Your task to perform on an android device: Play the last video I watched on Youtube Image 0: 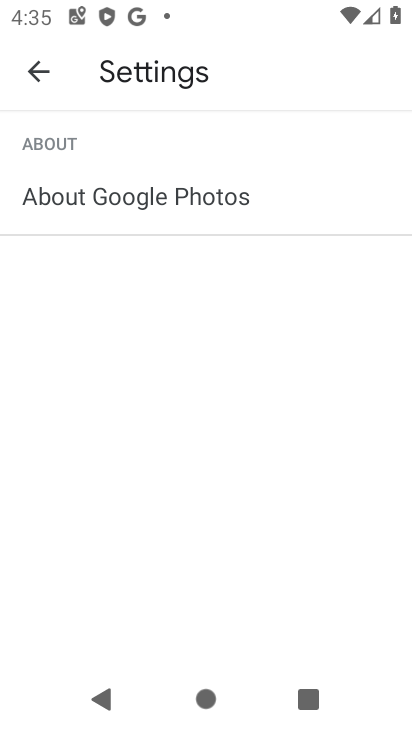
Step 0: press home button
Your task to perform on an android device: Play the last video I watched on Youtube Image 1: 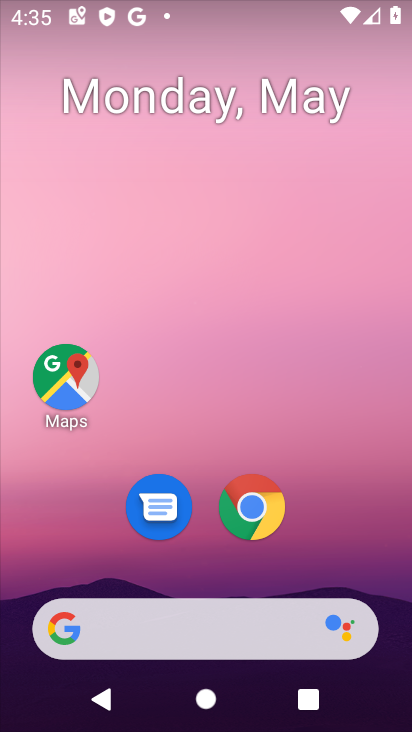
Step 1: drag from (328, 531) to (325, 35)
Your task to perform on an android device: Play the last video I watched on Youtube Image 2: 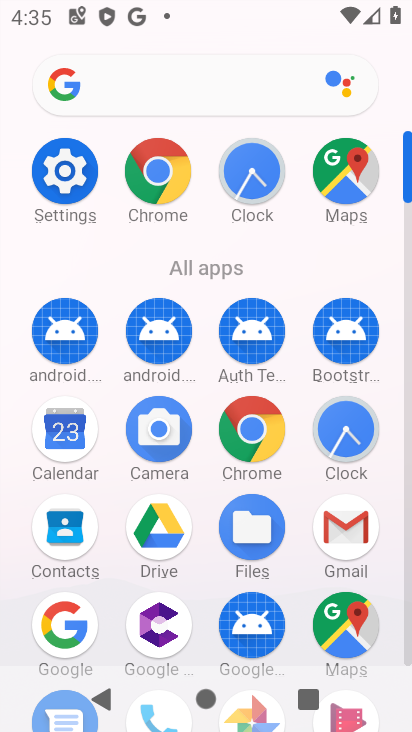
Step 2: drag from (395, 579) to (396, 182)
Your task to perform on an android device: Play the last video I watched on Youtube Image 3: 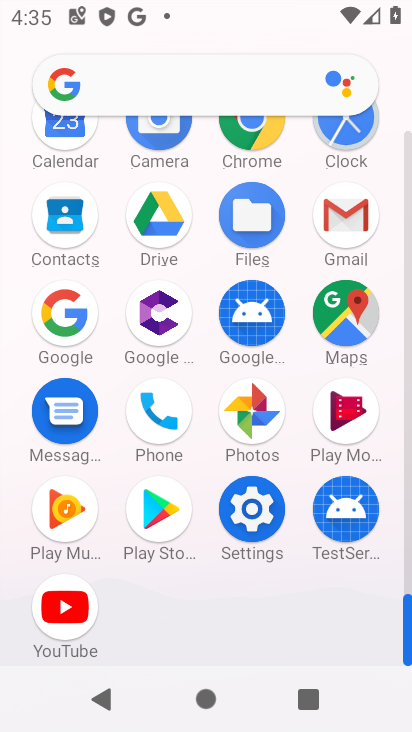
Step 3: click (57, 618)
Your task to perform on an android device: Play the last video I watched on Youtube Image 4: 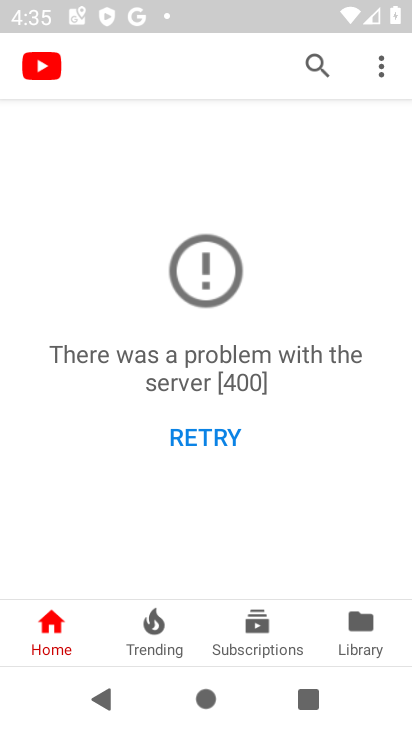
Step 4: click (363, 659)
Your task to perform on an android device: Play the last video I watched on Youtube Image 5: 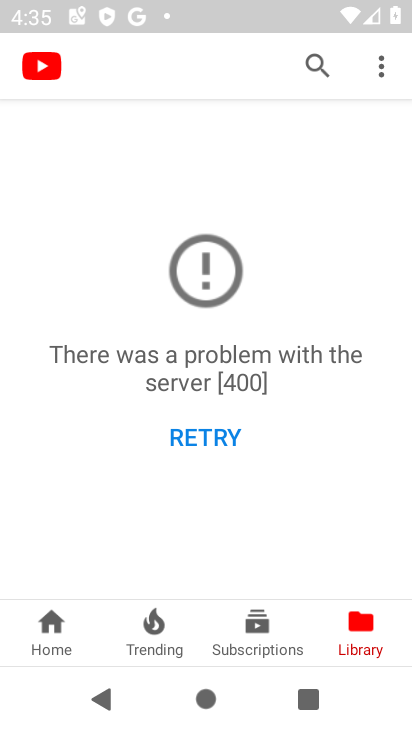
Step 5: click (219, 443)
Your task to perform on an android device: Play the last video I watched on Youtube Image 6: 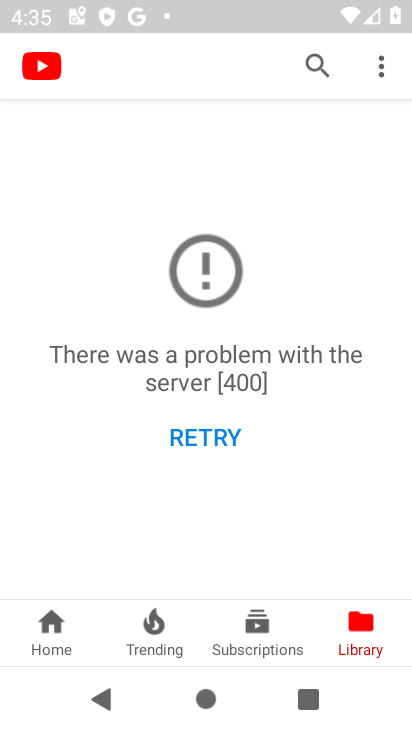
Step 6: click (217, 434)
Your task to perform on an android device: Play the last video I watched on Youtube Image 7: 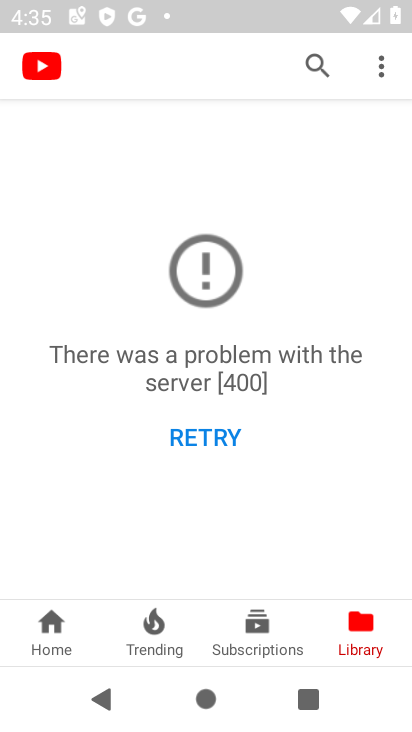
Step 7: task complete